Your task to perform on an android device: See recent photos Image 0: 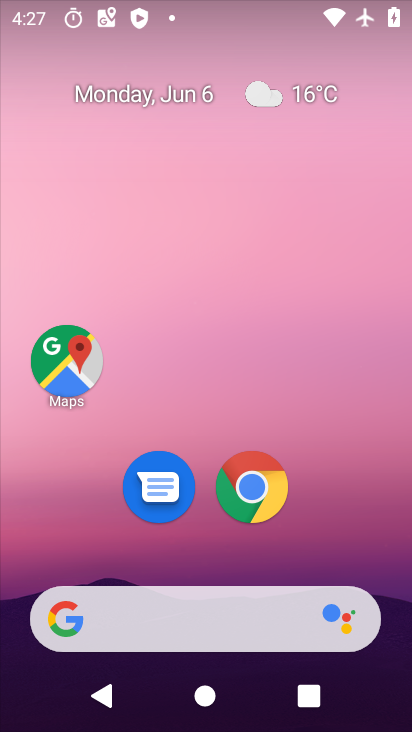
Step 0: drag from (326, 497) to (304, 82)
Your task to perform on an android device: See recent photos Image 1: 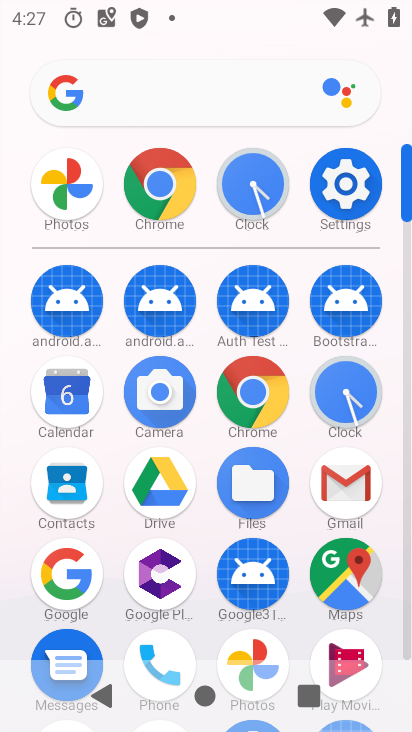
Step 1: click (83, 183)
Your task to perform on an android device: See recent photos Image 2: 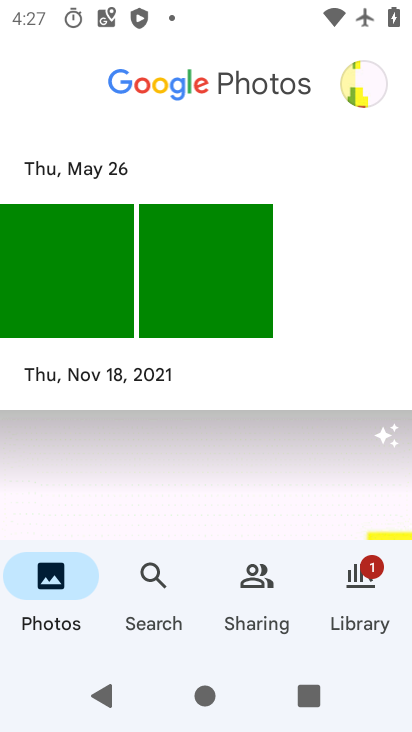
Step 2: task complete